Your task to perform on an android device: What's the weather? Image 0: 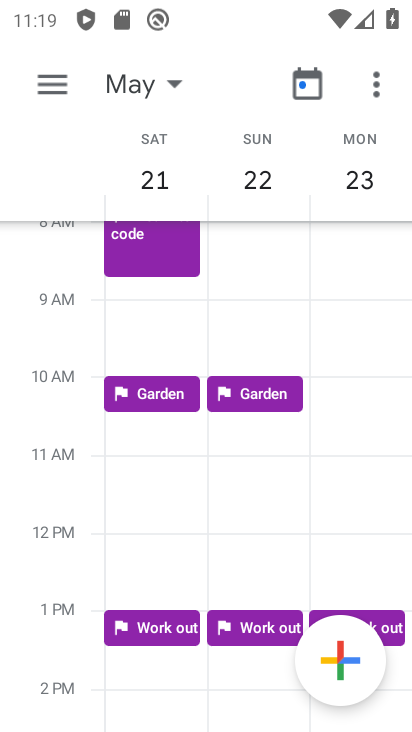
Step 0: press home button
Your task to perform on an android device: What's the weather? Image 1: 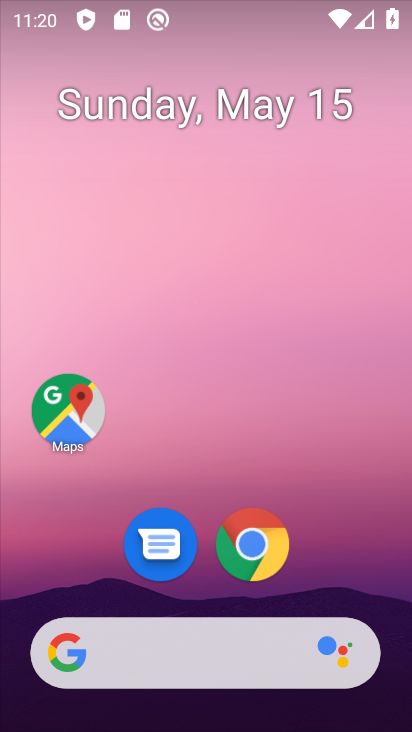
Step 1: drag from (353, 569) to (266, 54)
Your task to perform on an android device: What's the weather? Image 2: 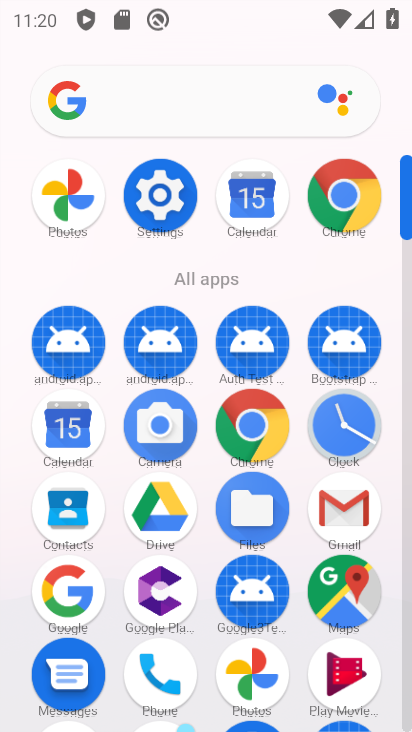
Step 2: click (340, 195)
Your task to perform on an android device: What's the weather? Image 3: 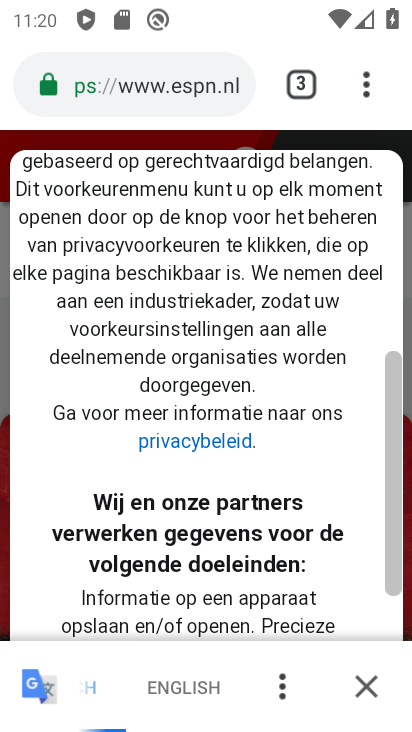
Step 3: click (157, 98)
Your task to perform on an android device: What's the weather? Image 4: 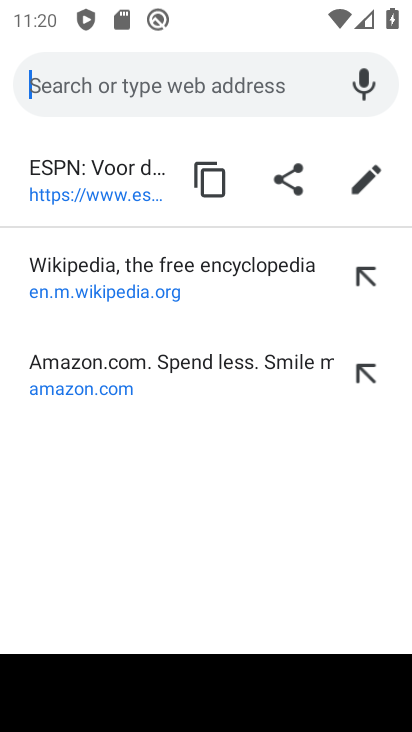
Step 4: type "What's the weather?"
Your task to perform on an android device: What's the weather? Image 5: 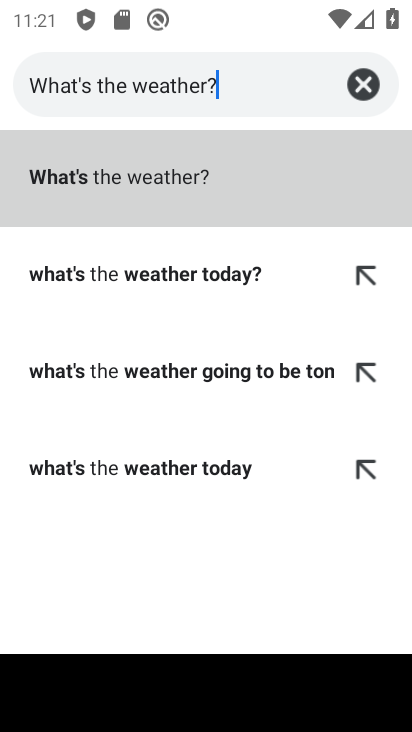
Step 5: click (84, 179)
Your task to perform on an android device: What's the weather? Image 6: 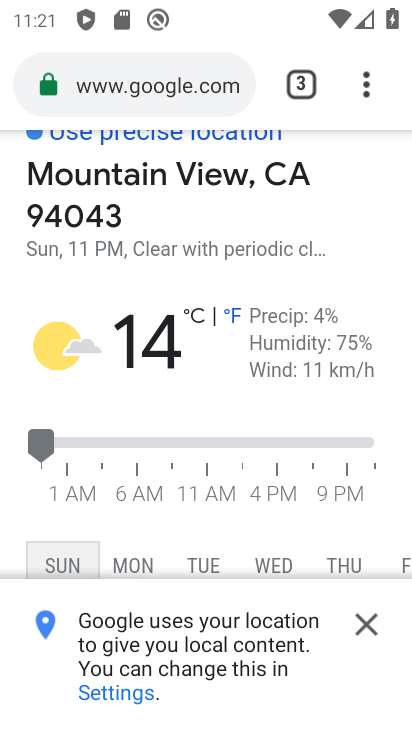
Step 6: click (365, 628)
Your task to perform on an android device: What's the weather? Image 7: 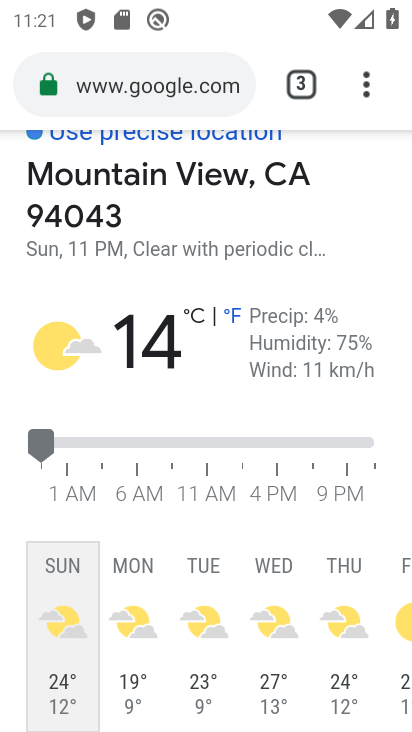
Step 7: drag from (300, 602) to (237, 213)
Your task to perform on an android device: What's the weather? Image 8: 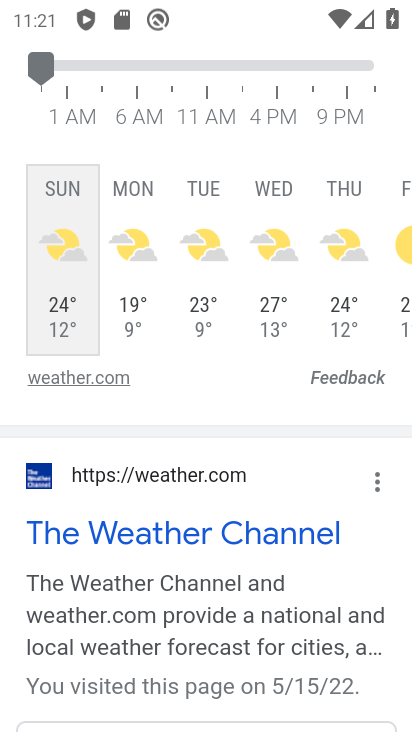
Step 8: click (63, 274)
Your task to perform on an android device: What's the weather? Image 9: 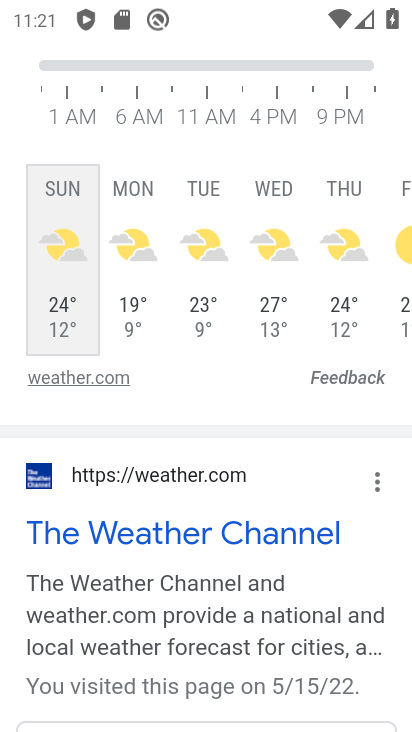
Step 9: task complete